Your task to perform on an android device: Do I have any events this weekend? Image 0: 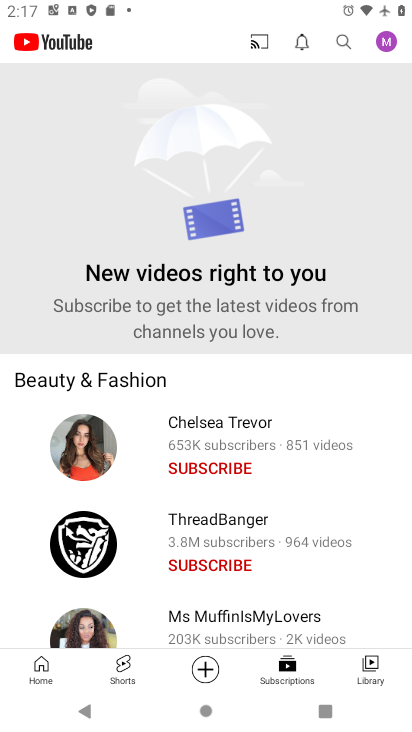
Step 0: press home button
Your task to perform on an android device: Do I have any events this weekend? Image 1: 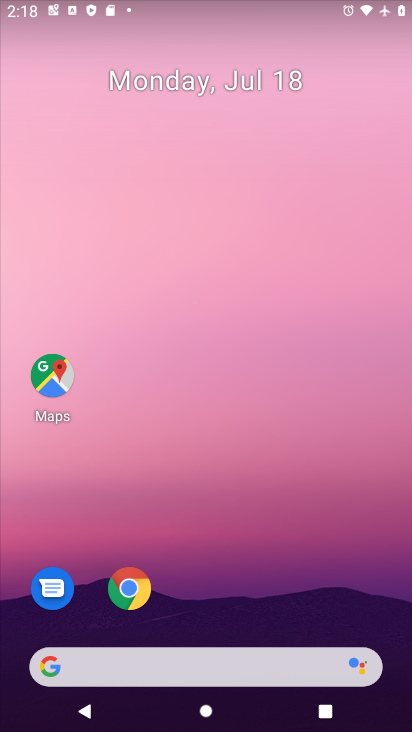
Step 1: drag from (231, 596) to (223, 285)
Your task to perform on an android device: Do I have any events this weekend? Image 2: 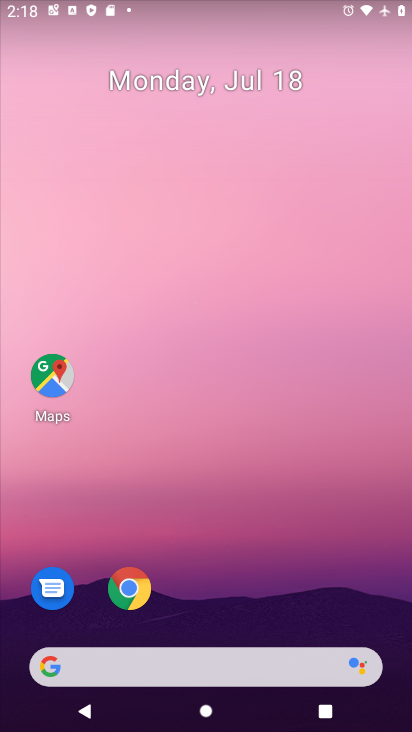
Step 2: drag from (251, 626) to (252, 167)
Your task to perform on an android device: Do I have any events this weekend? Image 3: 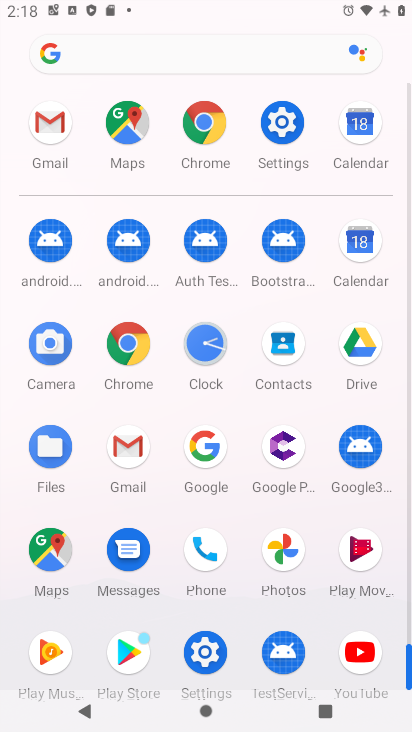
Step 3: click (384, 251)
Your task to perform on an android device: Do I have any events this weekend? Image 4: 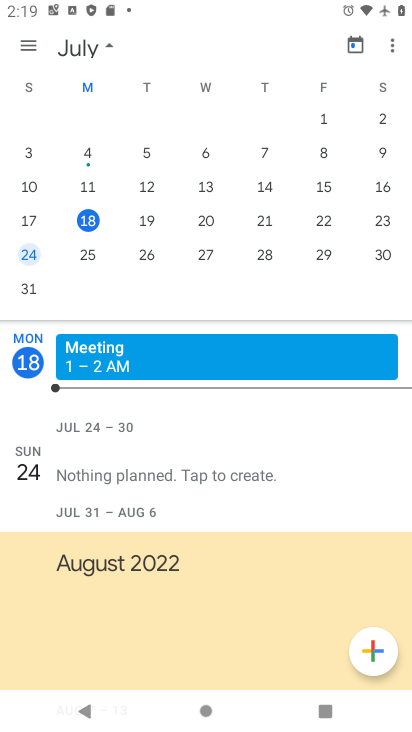
Step 4: task complete